Your task to perform on an android device: What's the weather going to be this weekend? Image 0: 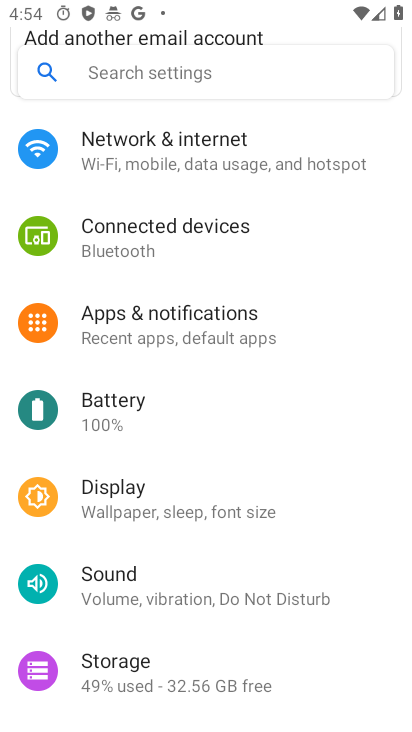
Step 0: press home button
Your task to perform on an android device: What's the weather going to be this weekend? Image 1: 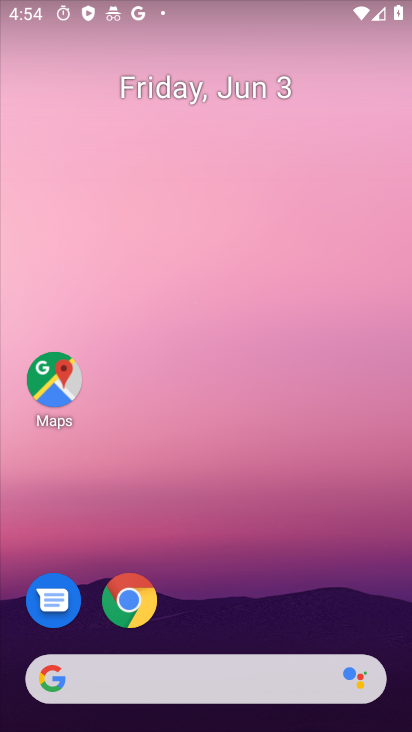
Step 1: drag from (1, 298) to (407, 353)
Your task to perform on an android device: What's the weather going to be this weekend? Image 2: 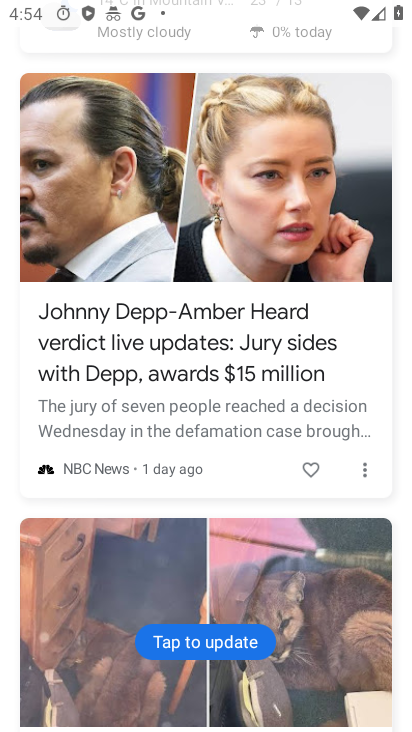
Step 2: drag from (229, 130) to (267, 607)
Your task to perform on an android device: What's the weather going to be this weekend? Image 3: 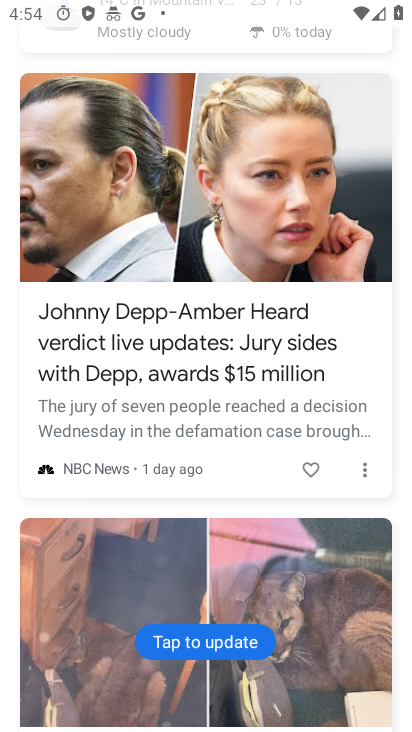
Step 3: drag from (269, 152) to (277, 583)
Your task to perform on an android device: What's the weather going to be this weekend? Image 4: 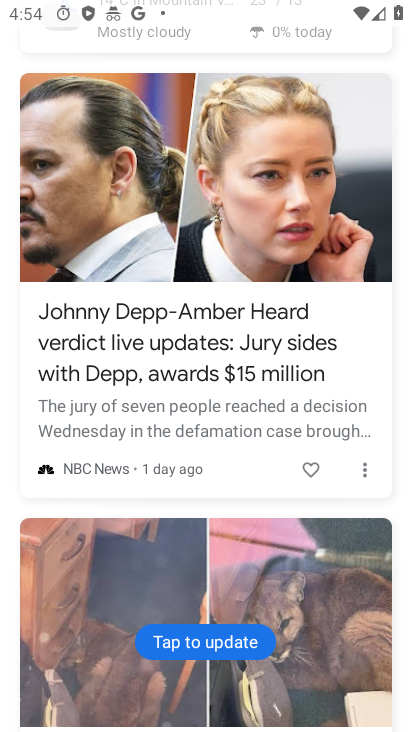
Step 4: drag from (284, 121) to (307, 505)
Your task to perform on an android device: What's the weather going to be this weekend? Image 5: 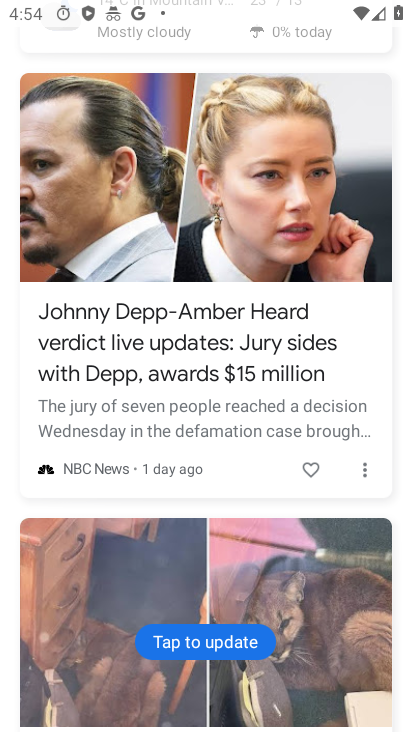
Step 5: click (297, 32)
Your task to perform on an android device: What's the weather going to be this weekend? Image 6: 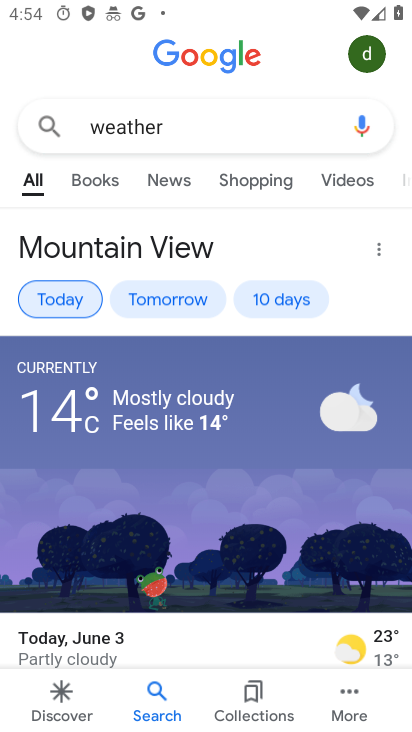
Step 6: click (298, 290)
Your task to perform on an android device: What's the weather going to be this weekend? Image 7: 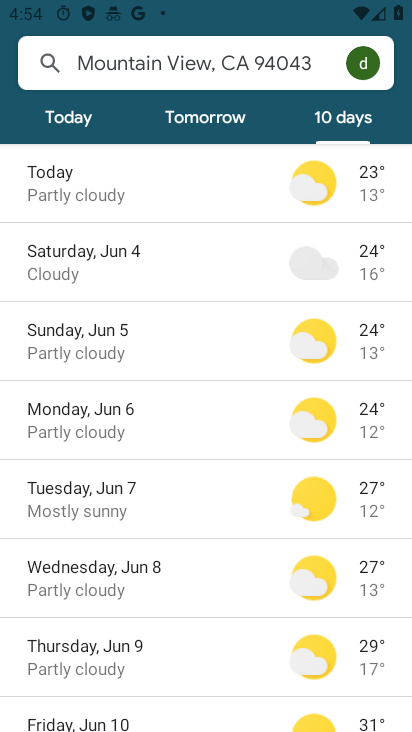
Step 7: task complete